Your task to perform on an android device: Play the last video I watched on Youtube Image 0: 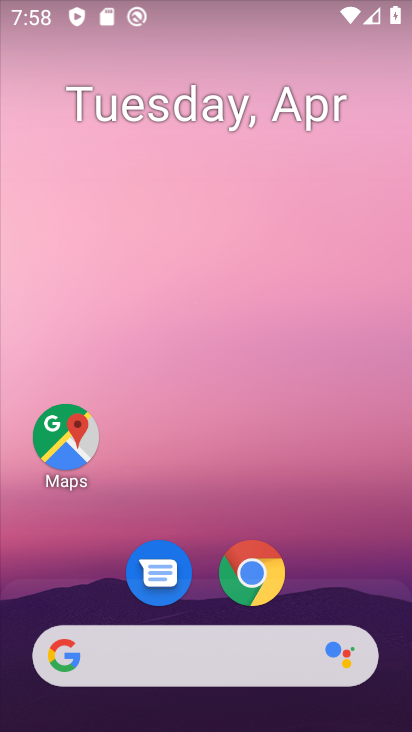
Step 0: drag from (203, 503) to (228, 3)
Your task to perform on an android device: Play the last video I watched on Youtube Image 1: 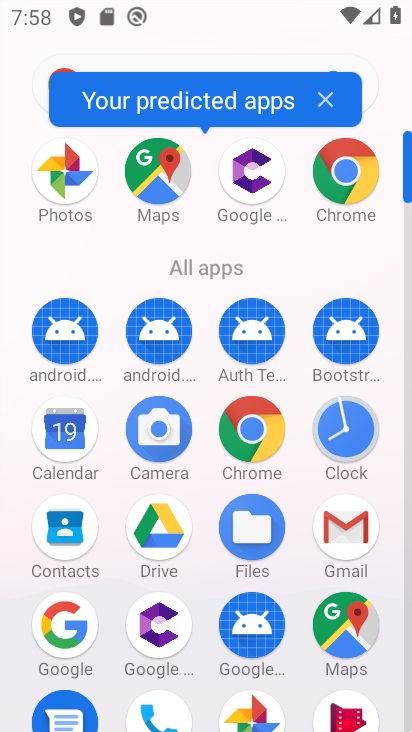
Step 1: drag from (207, 689) to (293, 31)
Your task to perform on an android device: Play the last video I watched on Youtube Image 2: 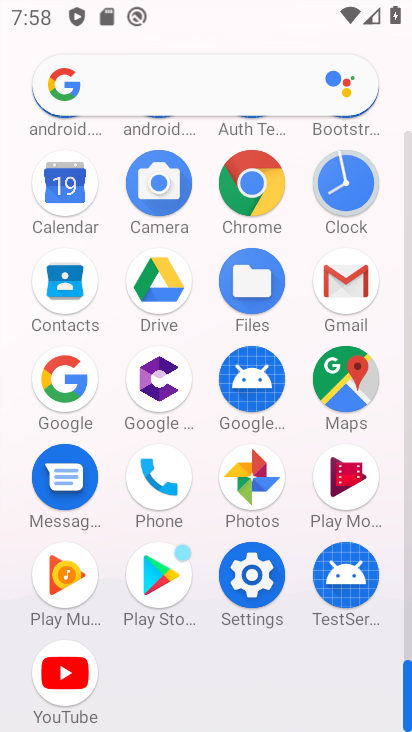
Step 2: click (62, 676)
Your task to perform on an android device: Play the last video I watched on Youtube Image 3: 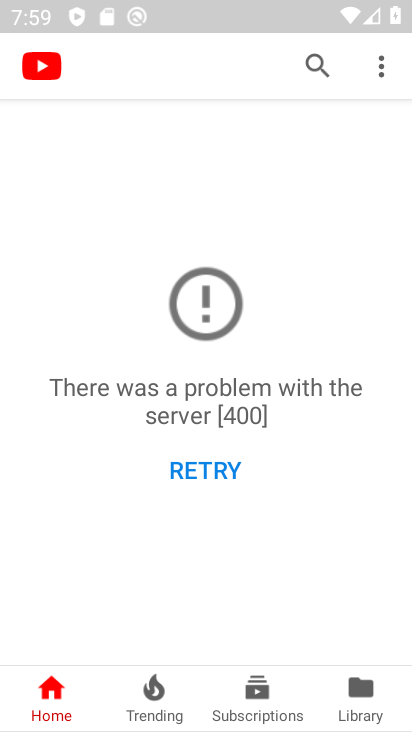
Step 3: click (165, 689)
Your task to perform on an android device: Play the last video I watched on Youtube Image 4: 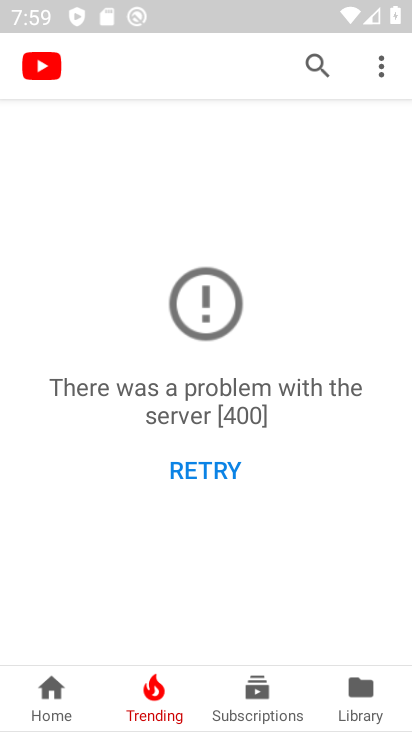
Step 4: click (231, 680)
Your task to perform on an android device: Play the last video I watched on Youtube Image 5: 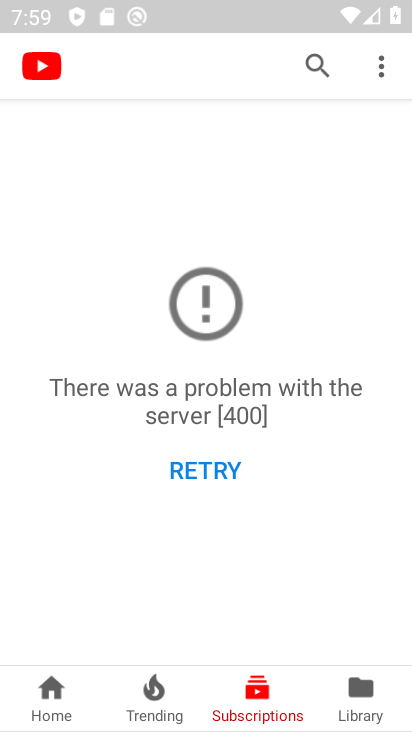
Step 5: click (343, 673)
Your task to perform on an android device: Play the last video I watched on Youtube Image 6: 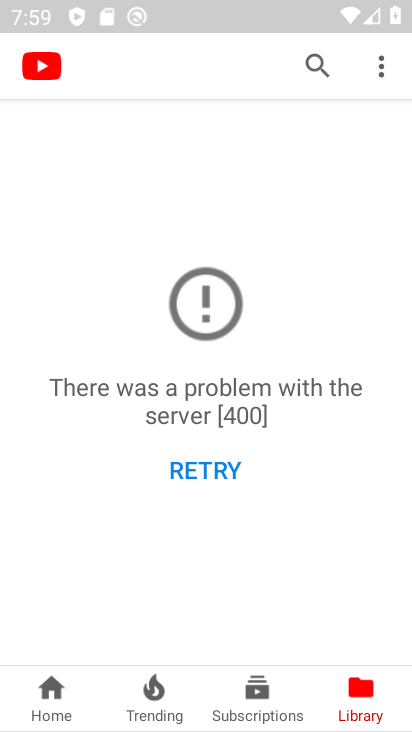
Step 6: click (387, 71)
Your task to perform on an android device: Play the last video I watched on Youtube Image 7: 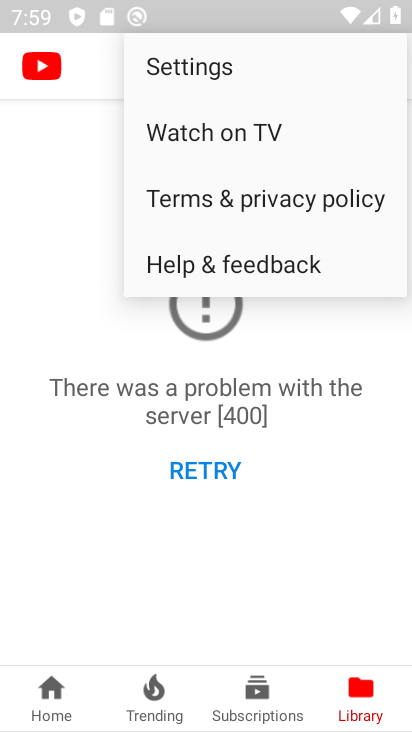
Step 7: task complete